Your task to perform on an android device: install app "File Manager" Image 0: 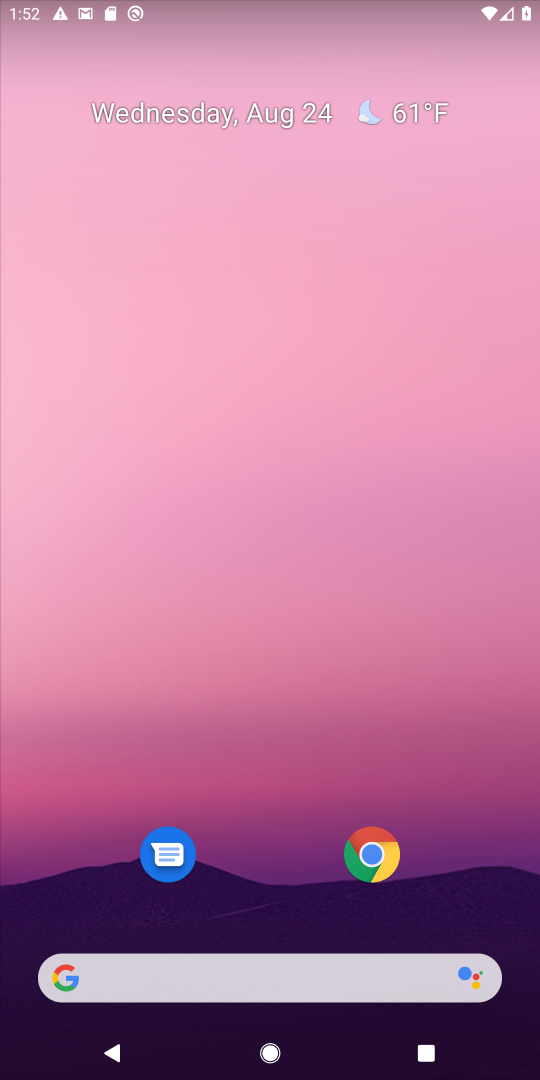
Step 0: press home button
Your task to perform on an android device: install app "File Manager" Image 1: 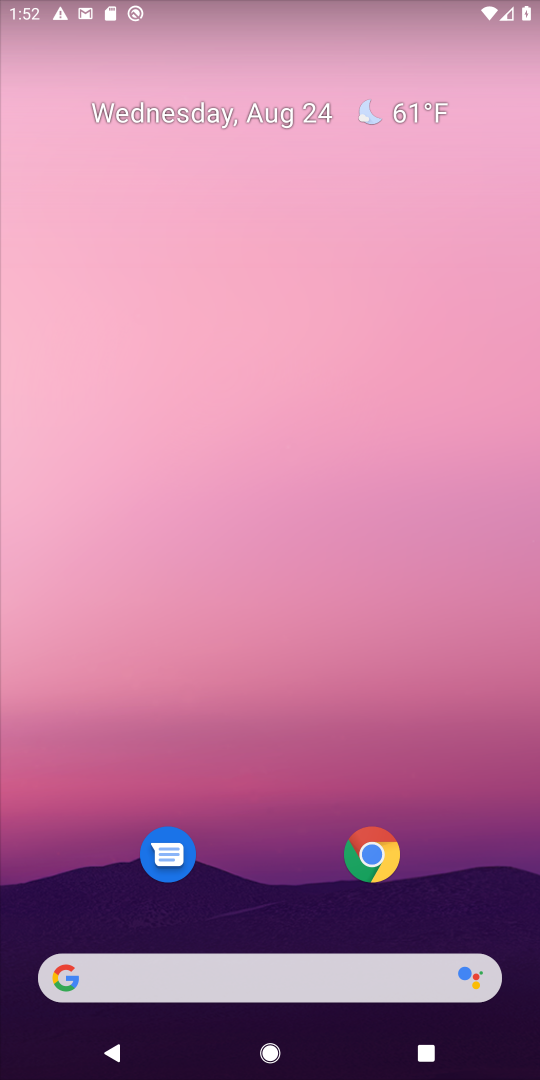
Step 1: drag from (473, 715) to (475, 101)
Your task to perform on an android device: install app "File Manager" Image 2: 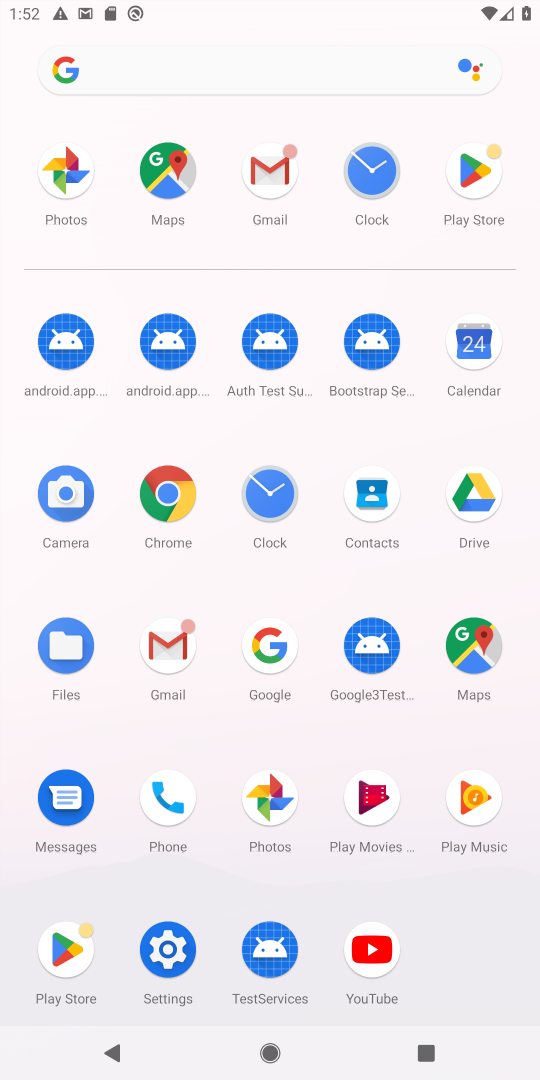
Step 2: click (474, 165)
Your task to perform on an android device: install app "File Manager" Image 3: 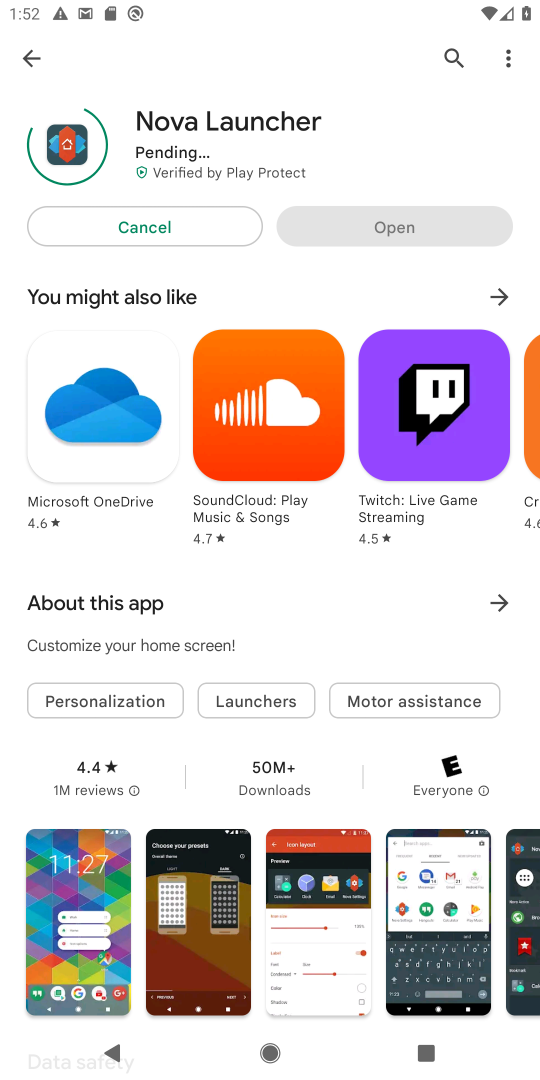
Step 3: press back button
Your task to perform on an android device: install app "File Manager" Image 4: 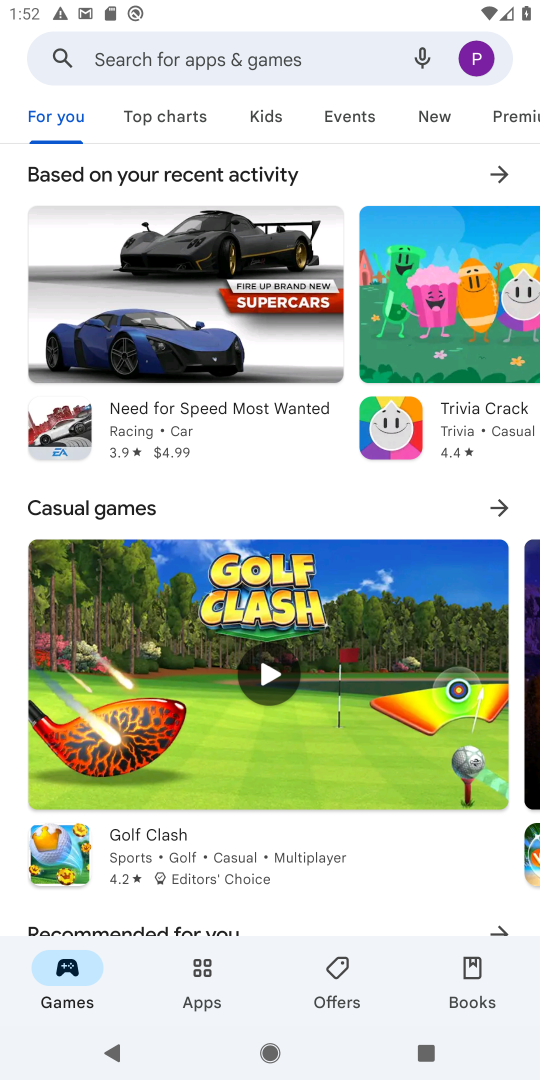
Step 4: click (274, 48)
Your task to perform on an android device: install app "File Manager" Image 5: 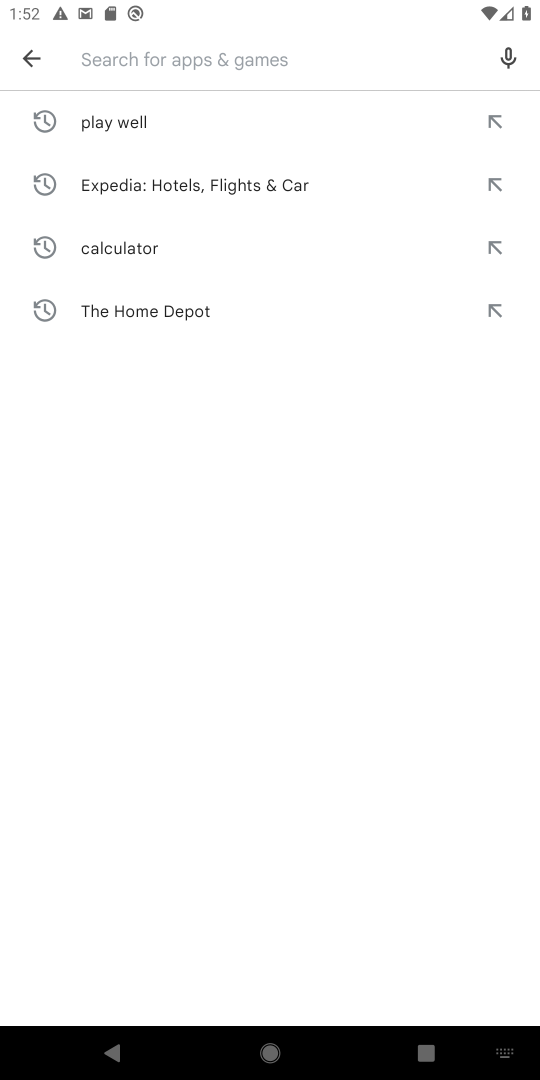
Step 5: type "File Manager"
Your task to perform on an android device: install app "File Manager" Image 6: 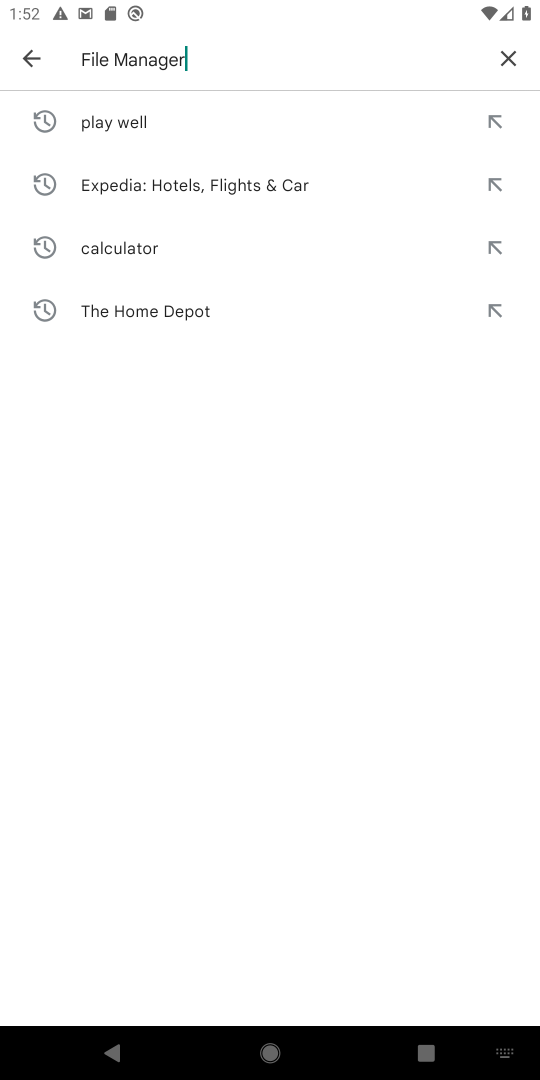
Step 6: press enter
Your task to perform on an android device: install app "File Manager" Image 7: 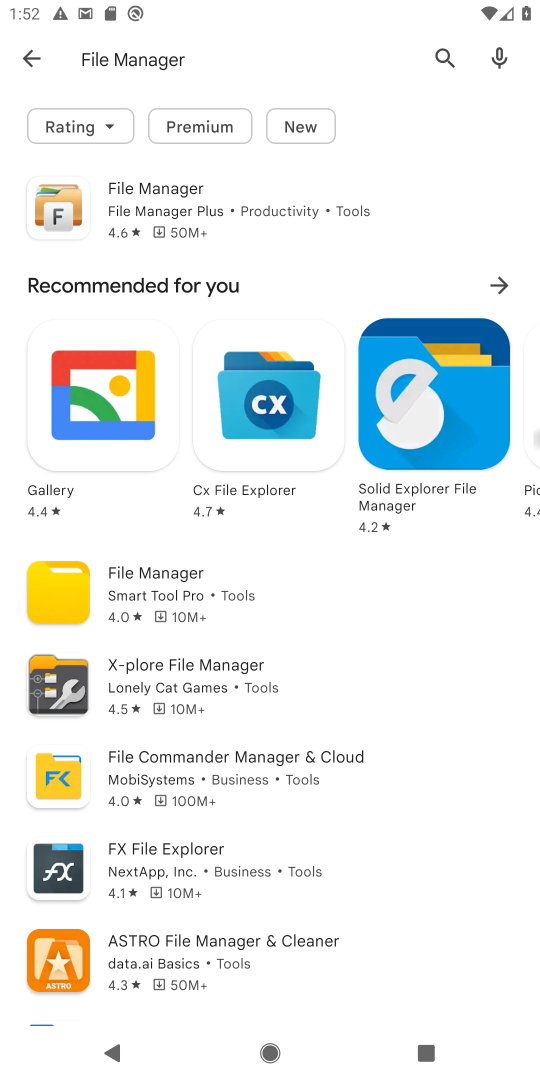
Step 7: task complete